Your task to perform on an android device: Open Google Chrome and open the bookmarks view Image 0: 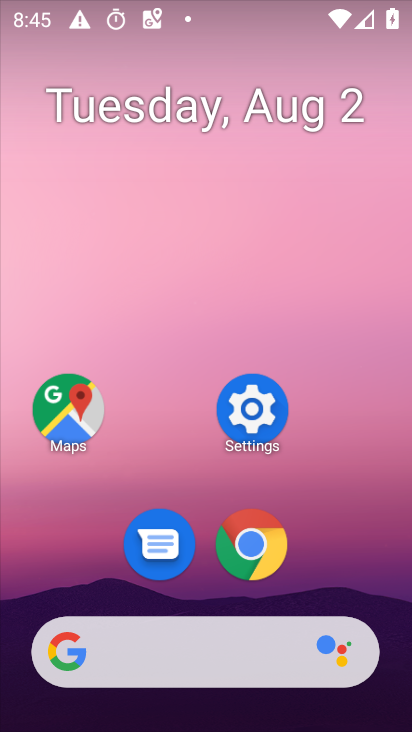
Step 0: click (254, 549)
Your task to perform on an android device: Open Google Chrome and open the bookmarks view Image 1: 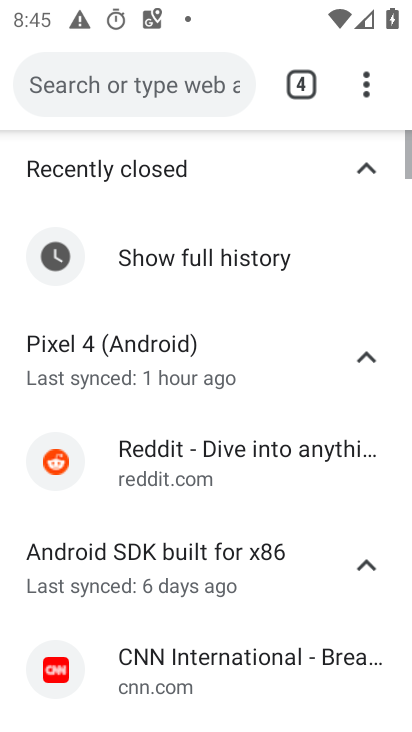
Step 1: task complete